Your task to perform on an android device: Open Maps and search for coffee Image 0: 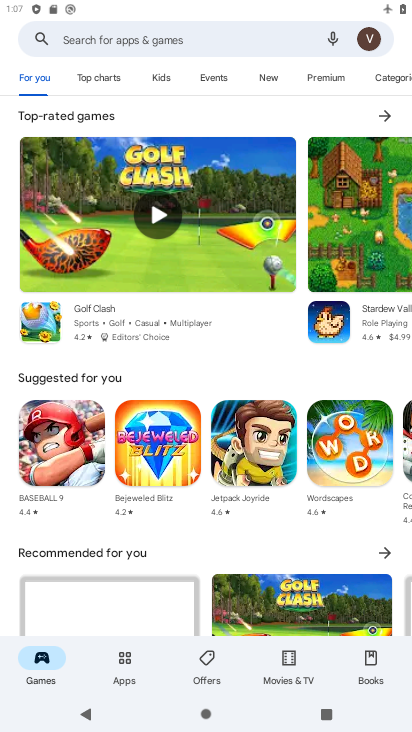
Step 0: press home button
Your task to perform on an android device: Open Maps and search for coffee Image 1: 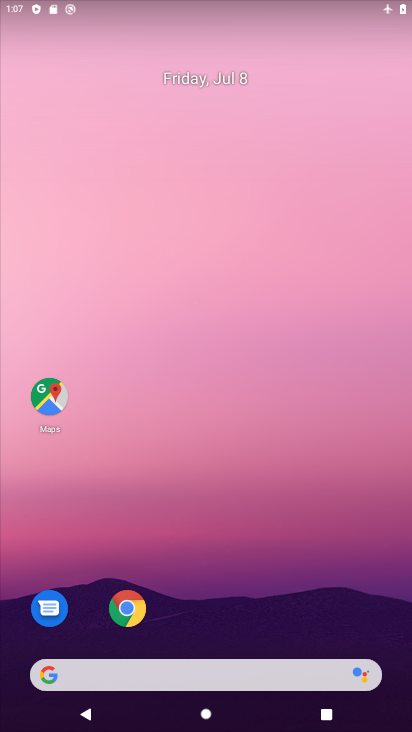
Step 1: click (308, 622)
Your task to perform on an android device: Open Maps and search for coffee Image 2: 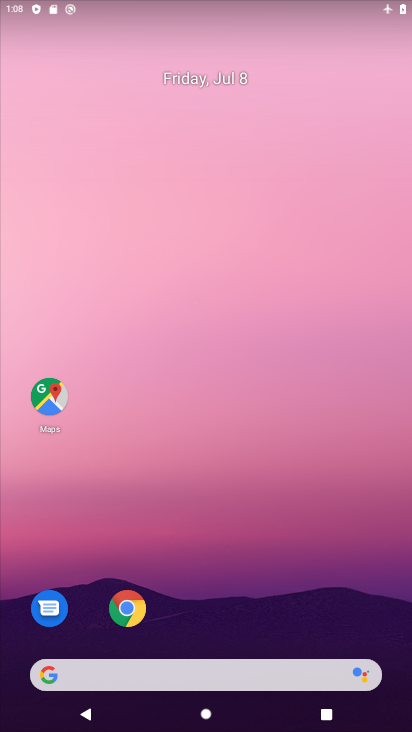
Step 2: click (46, 393)
Your task to perform on an android device: Open Maps and search for coffee Image 3: 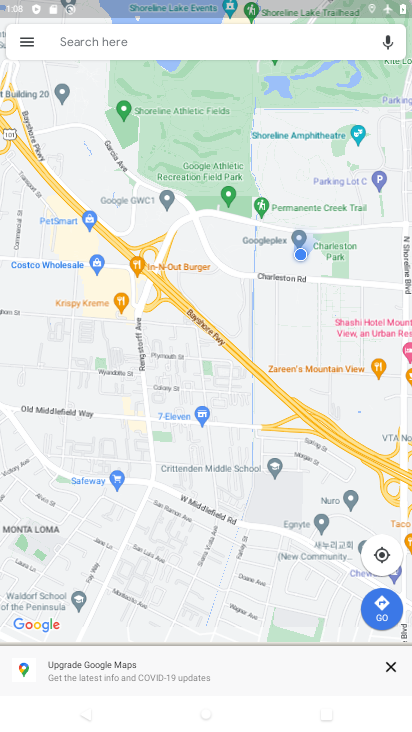
Step 3: click (124, 35)
Your task to perform on an android device: Open Maps and search for coffee Image 4: 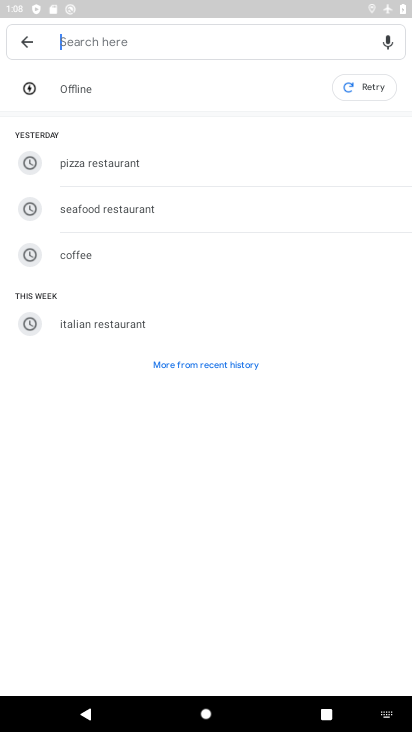
Step 4: type "coffee shop"
Your task to perform on an android device: Open Maps and search for coffee Image 5: 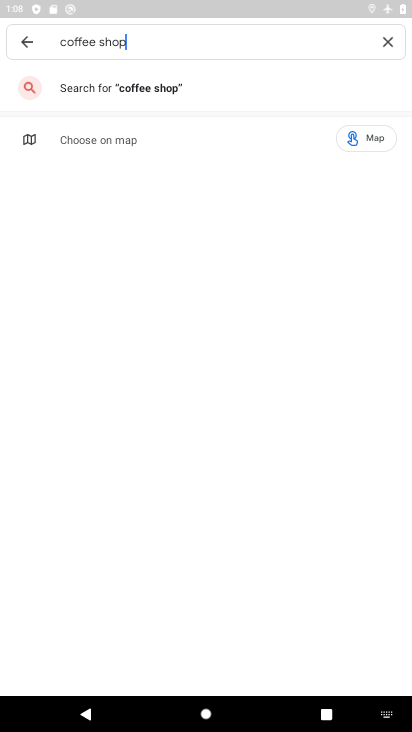
Step 5: task complete